Your task to perform on an android device: Open Amazon Image 0: 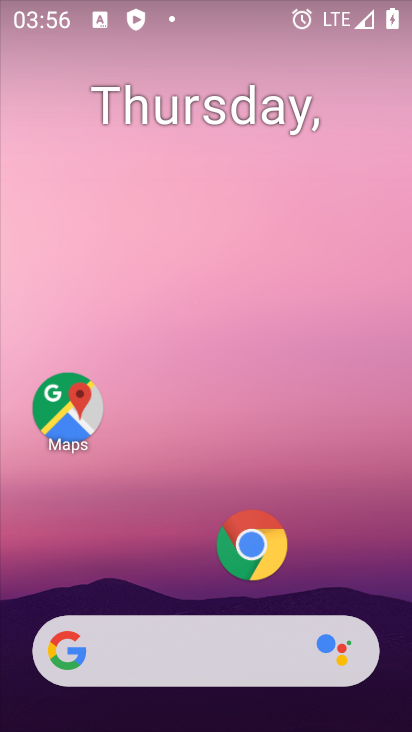
Step 0: drag from (201, 644) to (268, 21)
Your task to perform on an android device: Open Amazon Image 1: 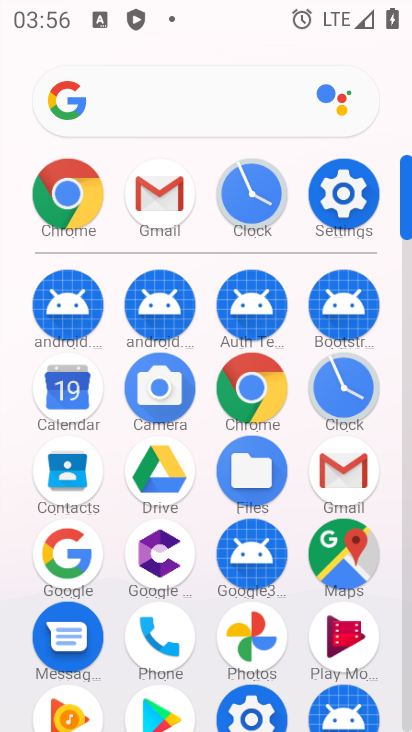
Step 1: click (266, 377)
Your task to perform on an android device: Open Amazon Image 2: 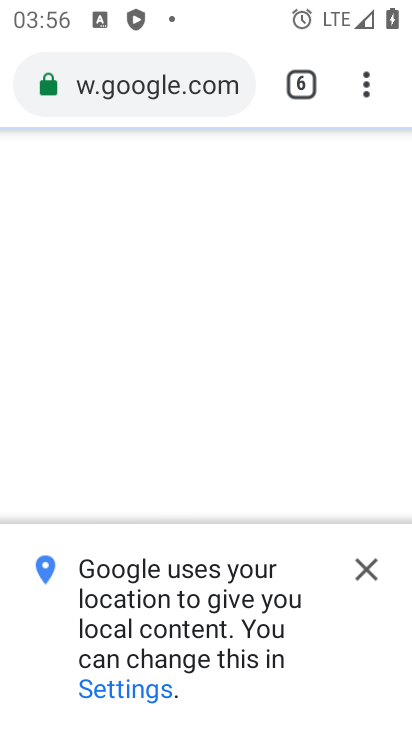
Step 2: click (367, 91)
Your task to perform on an android device: Open Amazon Image 3: 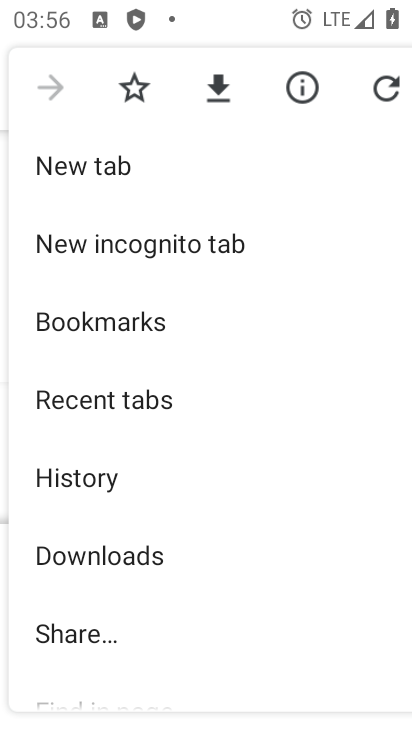
Step 3: press back button
Your task to perform on an android device: Open Amazon Image 4: 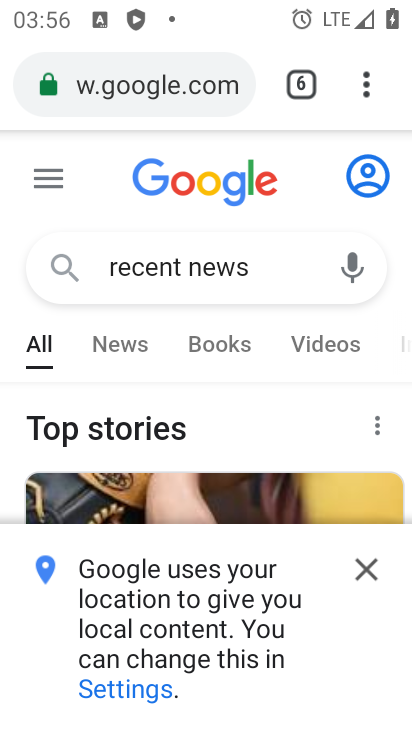
Step 4: click (360, 82)
Your task to perform on an android device: Open Amazon Image 5: 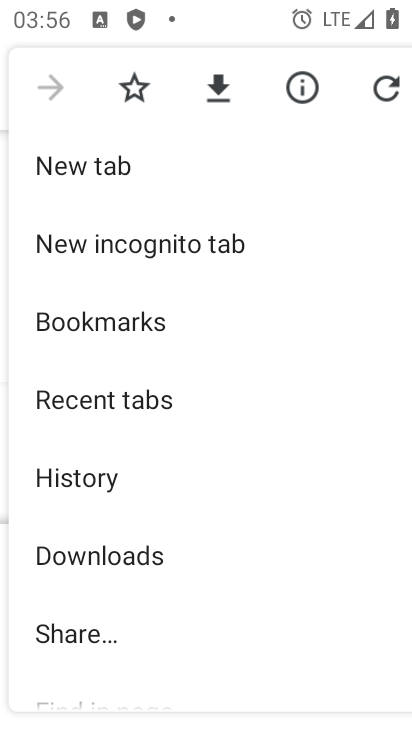
Step 5: click (183, 148)
Your task to perform on an android device: Open Amazon Image 6: 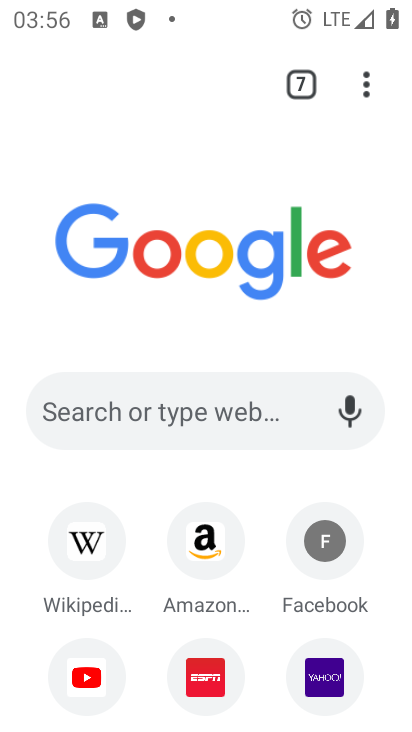
Step 6: click (217, 529)
Your task to perform on an android device: Open Amazon Image 7: 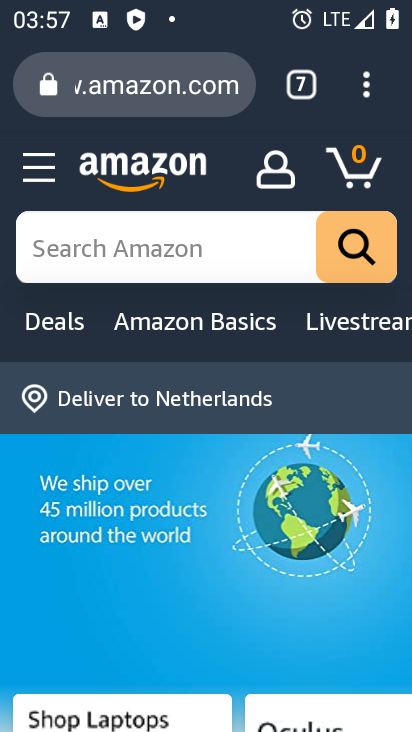
Step 7: task complete